Your task to perform on an android device: manage bookmarks in the chrome app Image 0: 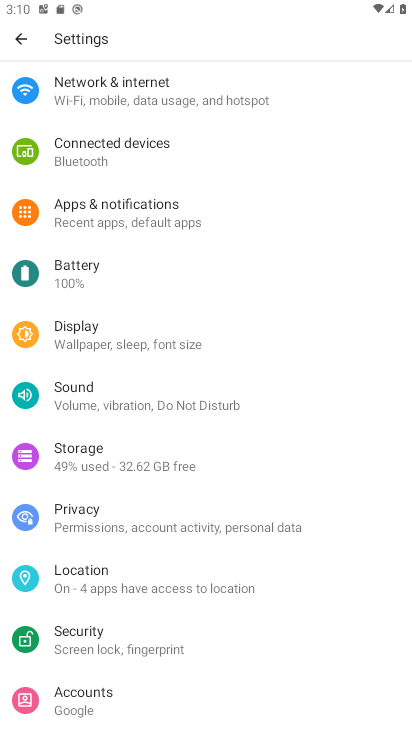
Step 0: press home button
Your task to perform on an android device: manage bookmarks in the chrome app Image 1: 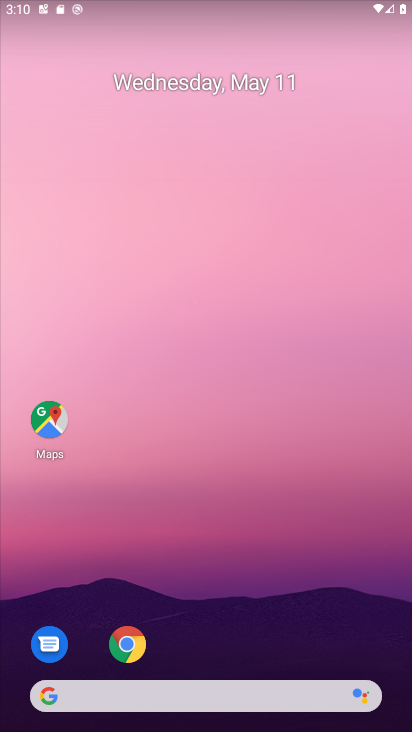
Step 1: click (139, 637)
Your task to perform on an android device: manage bookmarks in the chrome app Image 2: 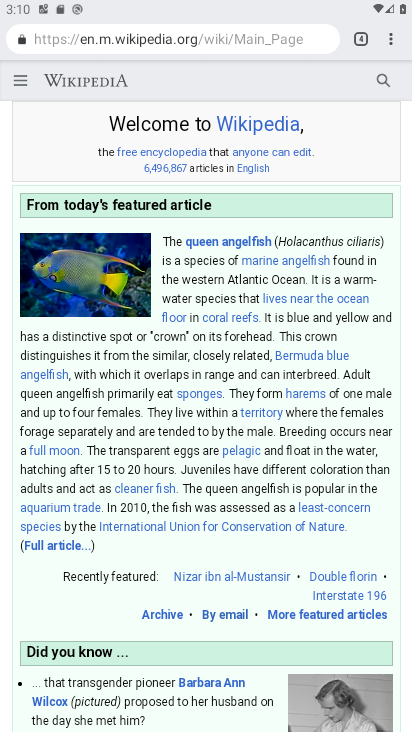
Step 2: click (390, 30)
Your task to perform on an android device: manage bookmarks in the chrome app Image 3: 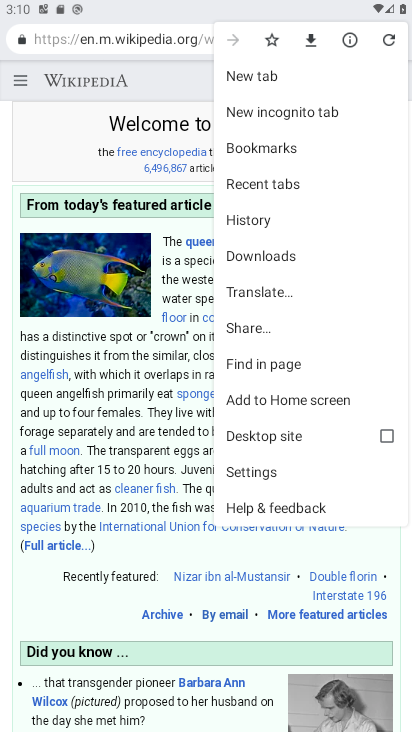
Step 3: click (253, 148)
Your task to perform on an android device: manage bookmarks in the chrome app Image 4: 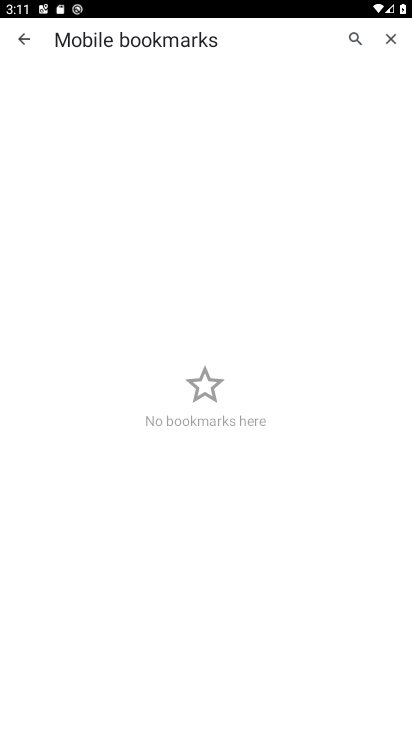
Step 4: task complete